Your task to perform on an android device: find photos in the google photos app Image 0: 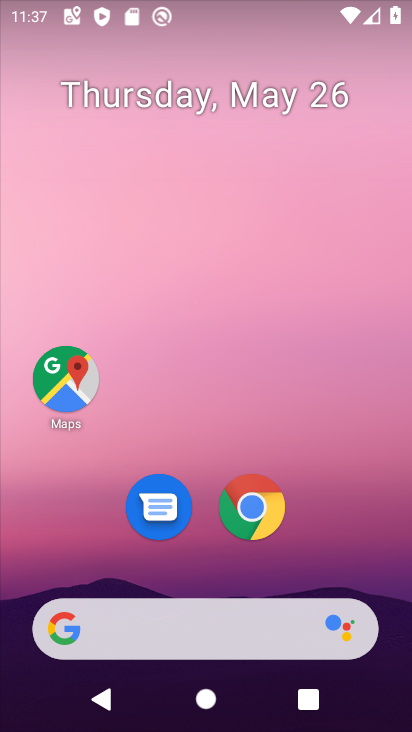
Step 0: drag from (353, 449) to (377, 126)
Your task to perform on an android device: find photos in the google photos app Image 1: 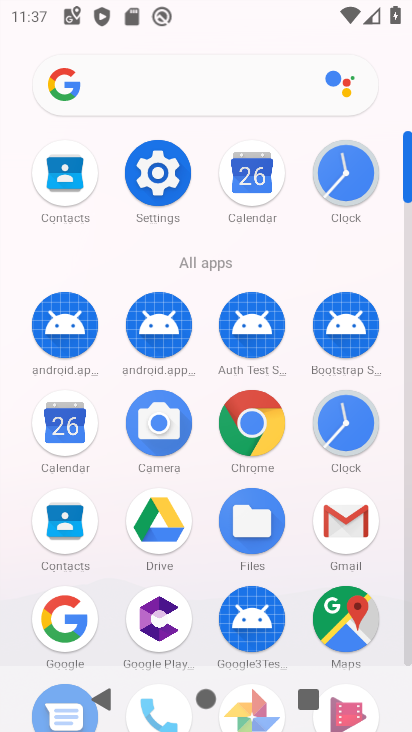
Step 1: drag from (284, 558) to (312, 145)
Your task to perform on an android device: find photos in the google photos app Image 2: 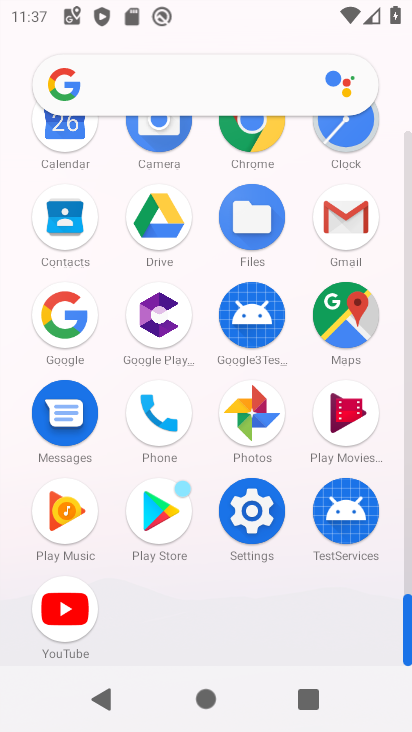
Step 2: click (265, 410)
Your task to perform on an android device: find photos in the google photos app Image 3: 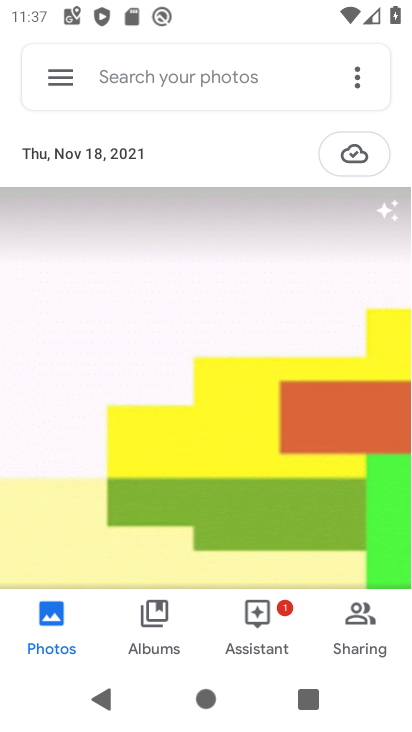
Step 3: task complete